Your task to perform on an android device: change notifications settings Image 0: 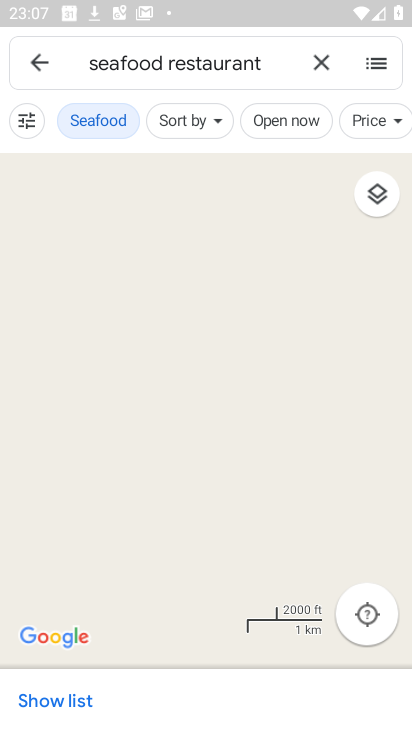
Step 0: press home button
Your task to perform on an android device: change notifications settings Image 1: 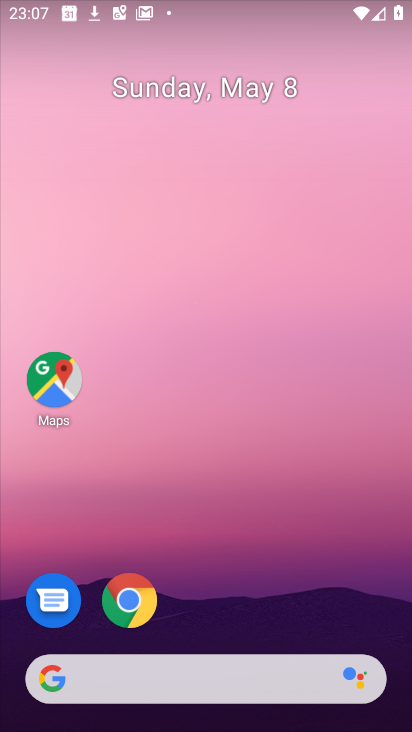
Step 1: drag from (202, 689) to (307, 181)
Your task to perform on an android device: change notifications settings Image 2: 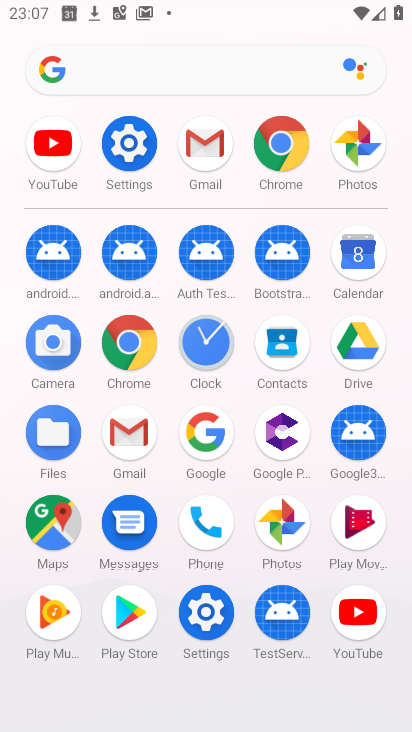
Step 2: click (129, 164)
Your task to perform on an android device: change notifications settings Image 3: 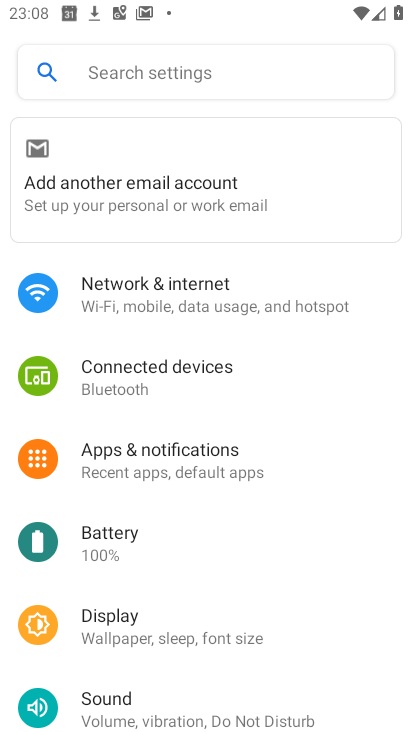
Step 3: click (184, 87)
Your task to perform on an android device: change notifications settings Image 4: 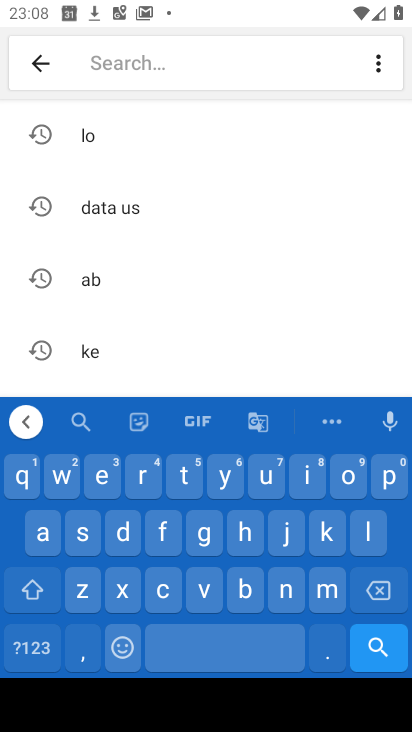
Step 4: click (294, 598)
Your task to perform on an android device: change notifications settings Image 5: 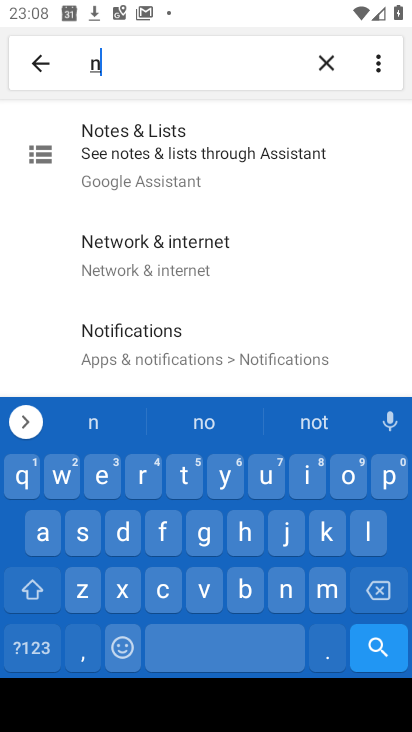
Step 5: click (161, 347)
Your task to perform on an android device: change notifications settings Image 6: 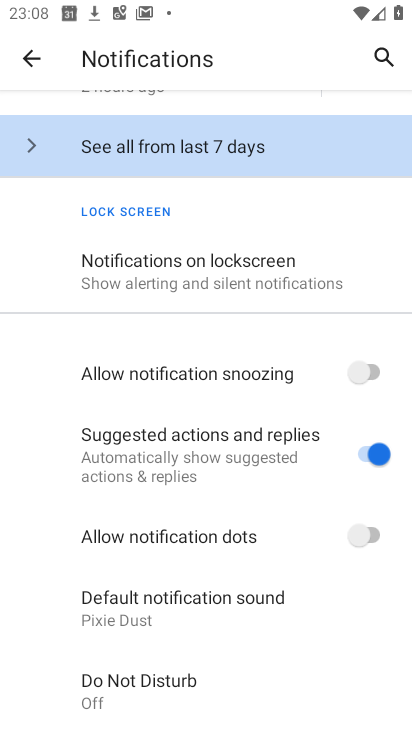
Step 6: click (196, 262)
Your task to perform on an android device: change notifications settings Image 7: 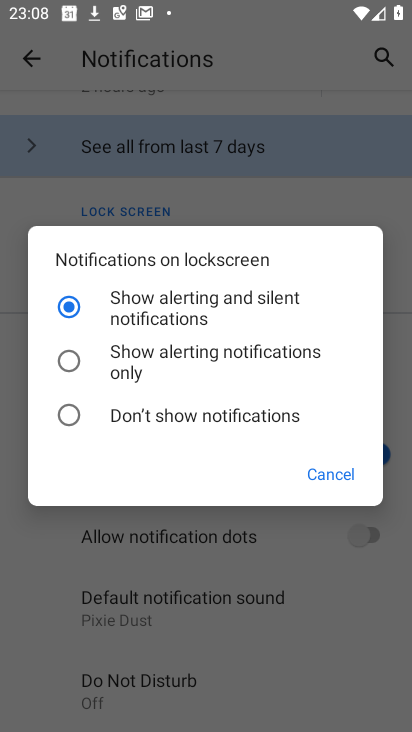
Step 7: click (161, 347)
Your task to perform on an android device: change notifications settings Image 8: 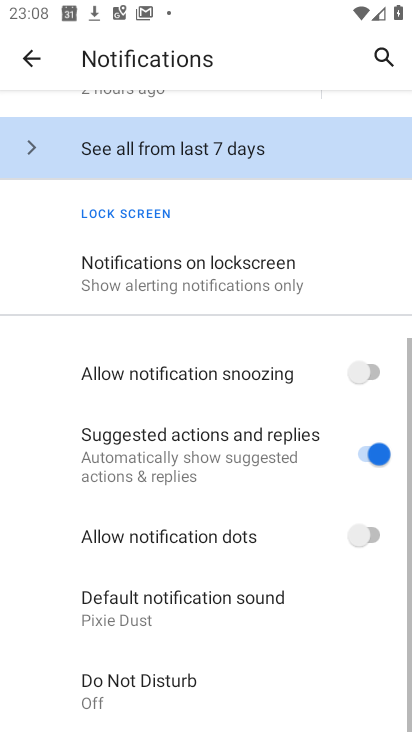
Step 8: task complete